Your task to perform on an android device: change the clock display to show seconds Image 0: 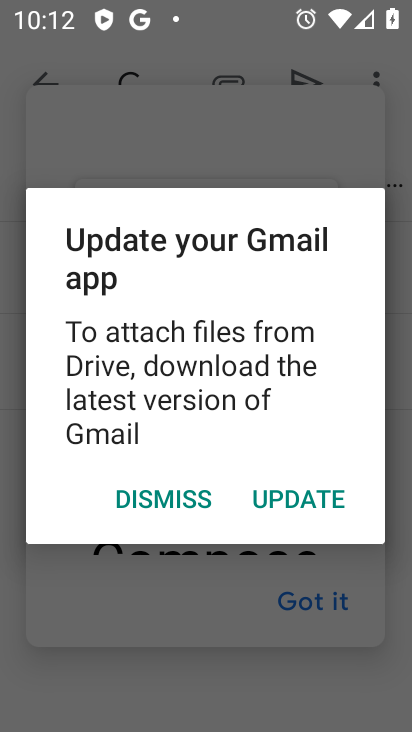
Step 0: press home button
Your task to perform on an android device: change the clock display to show seconds Image 1: 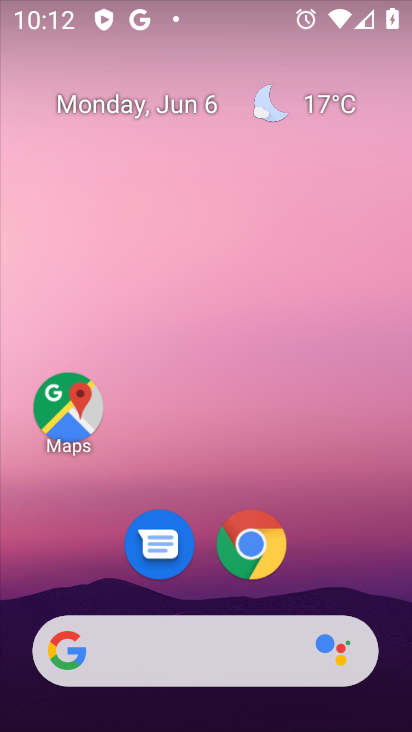
Step 1: drag from (93, 615) to (185, 184)
Your task to perform on an android device: change the clock display to show seconds Image 2: 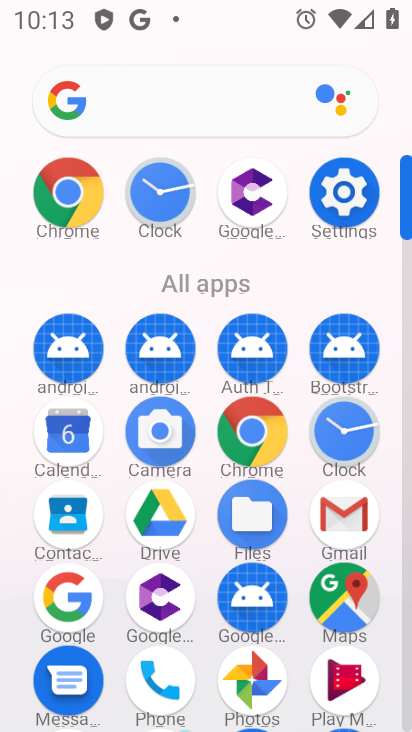
Step 2: click (342, 440)
Your task to perform on an android device: change the clock display to show seconds Image 3: 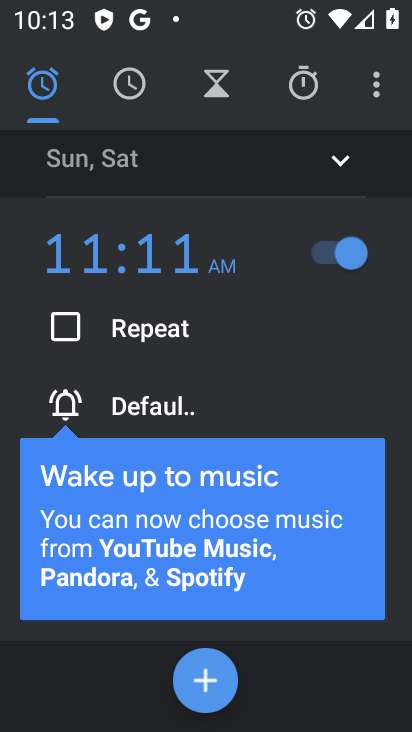
Step 3: click (377, 89)
Your task to perform on an android device: change the clock display to show seconds Image 4: 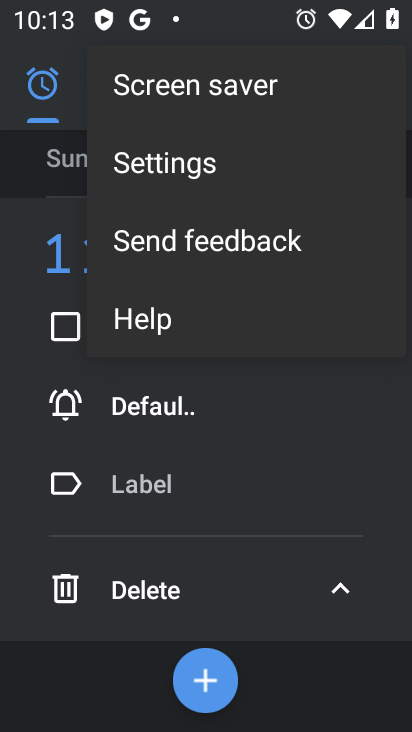
Step 4: click (239, 170)
Your task to perform on an android device: change the clock display to show seconds Image 5: 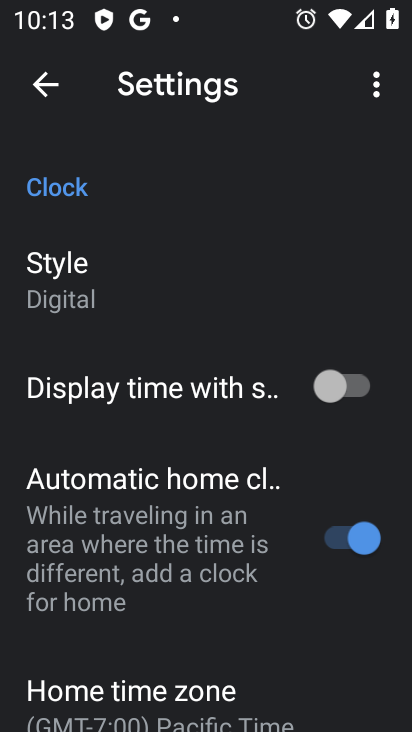
Step 5: click (366, 398)
Your task to perform on an android device: change the clock display to show seconds Image 6: 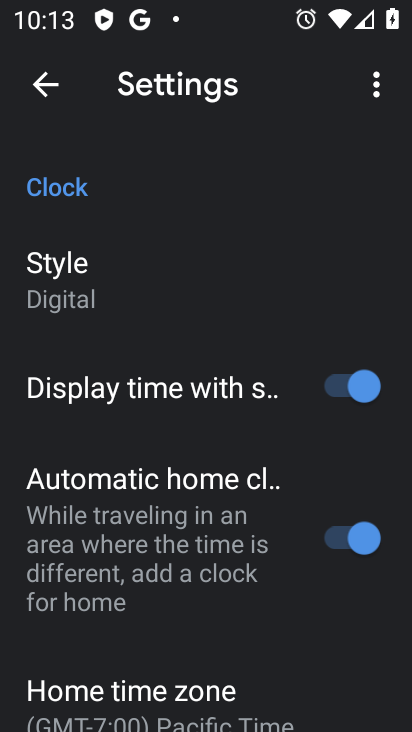
Step 6: task complete